Your task to perform on an android device: snooze an email in the gmail app Image 0: 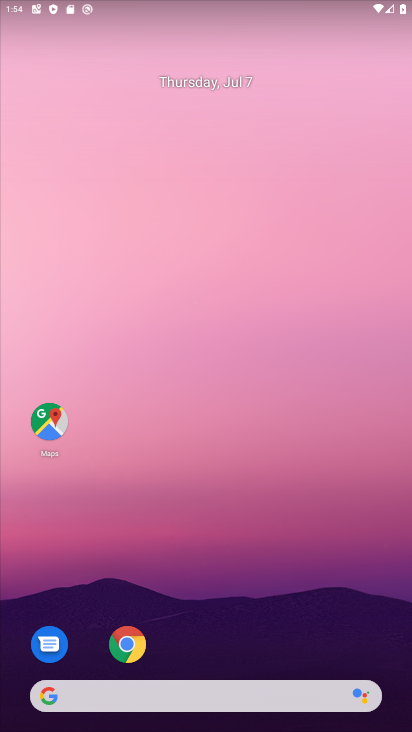
Step 0: drag from (203, 690) to (163, 152)
Your task to perform on an android device: snooze an email in the gmail app Image 1: 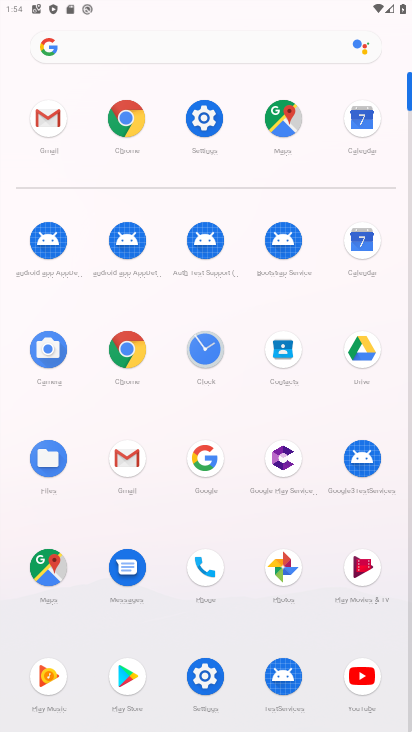
Step 1: click (132, 471)
Your task to perform on an android device: snooze an email in the gmail app Image 2: 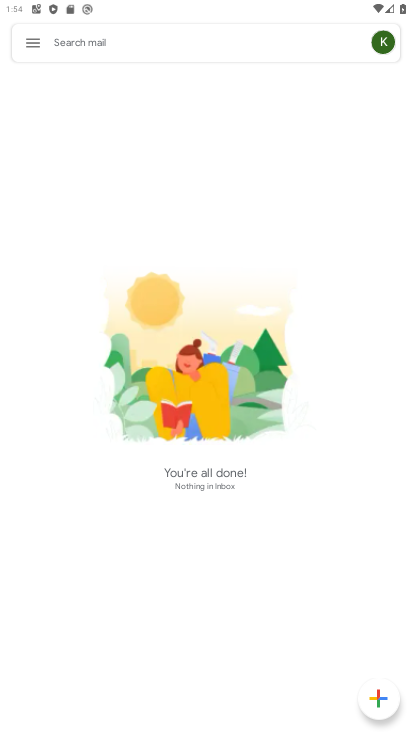
Step 2: click (25, 37)
Your task to perform on an android device: snooze an email in the gmail app Image 3: 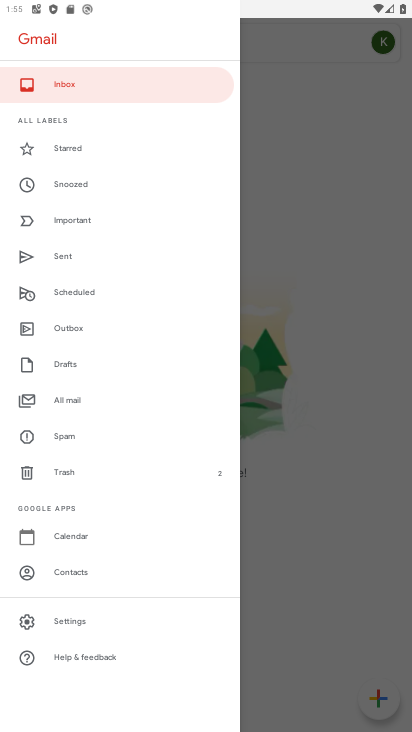
Step 3: click (76, 399)
Your task to perform on an android device: snooze an email in the gmail app Image 4: 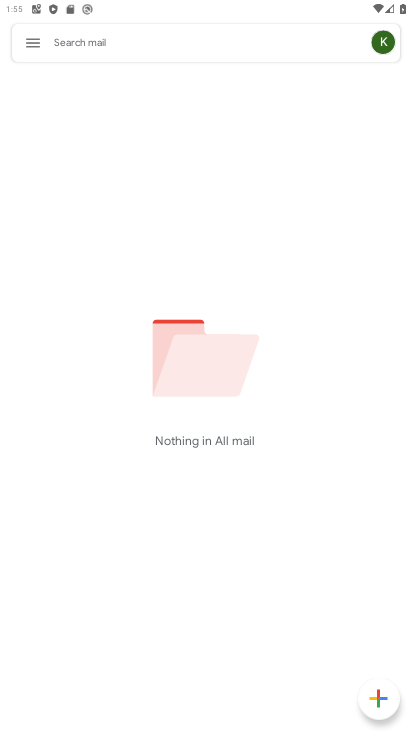
Step 4: task complete